Your task to perform on an android device: check the backup settings in the google photos Image 0: 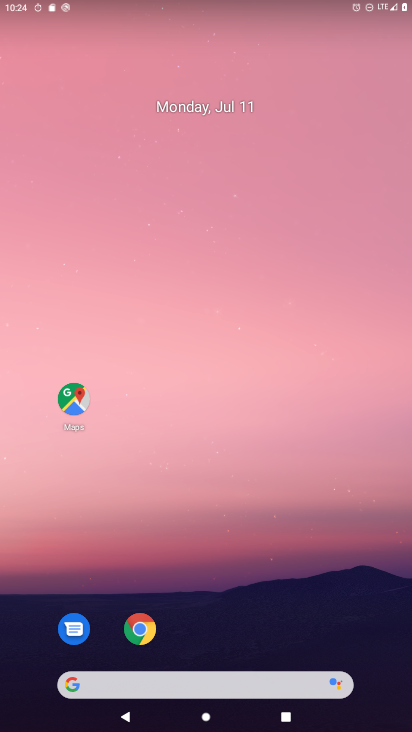
Step 0: drag from (197, 645) to (190, 173)
Your task to perform on an android device: check the backup settings in the google photos Image 1: 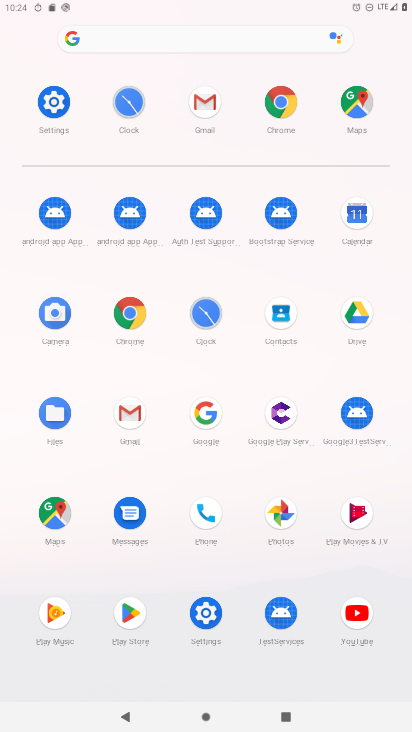
Step 1: click (277, 519)
Your task to perform on an android device: check the backup settings in the google photos Image 2: 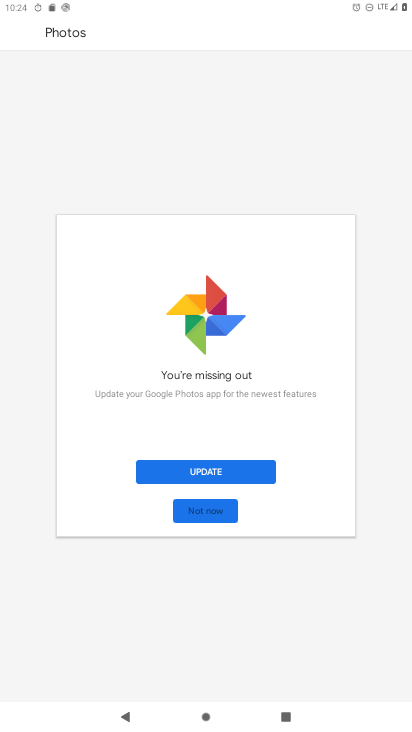
Step 2: click (227, 513)
Your task to perform on an android device: check the backup settings in the google photos Image 3: 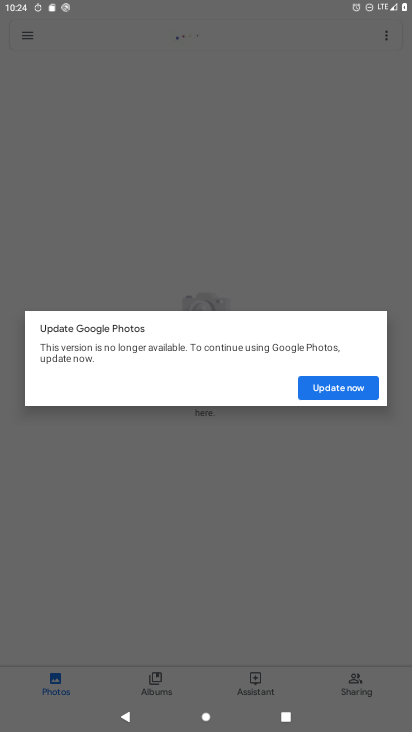
Step 3: click (358, 388)
Your task to perform on an android device: check the backup settings in the google photos Image 4: 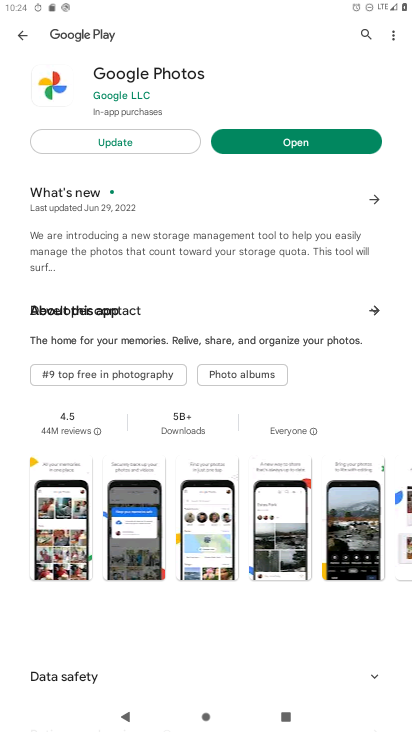
Step 4: click (303, 145)
Your task to perform on an android device: check the backup settings in the google photos Image 5: 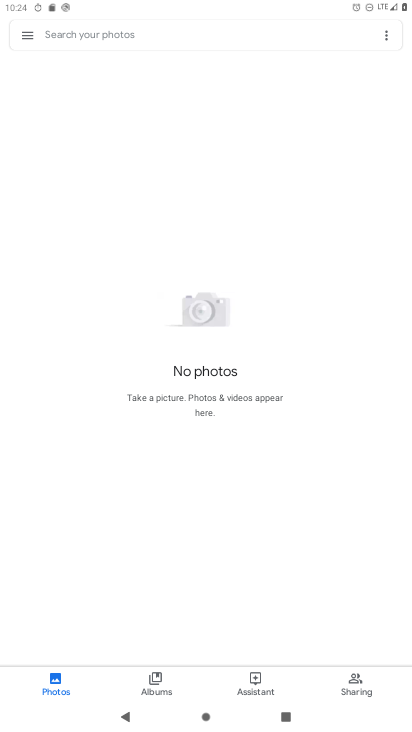
Step 5: click (29, 32)
Your task to perform on an android device: check the backup settings in the google photos Image 6: 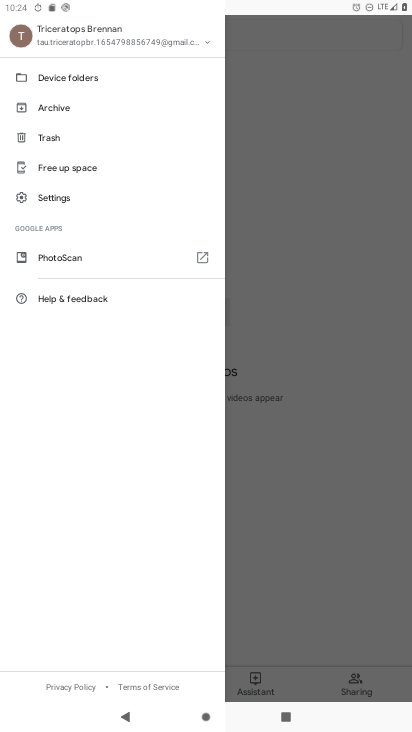
Step 6: click (76, 195)
Your task to perform on an android device: check the backup settings in the google photos Image 7: 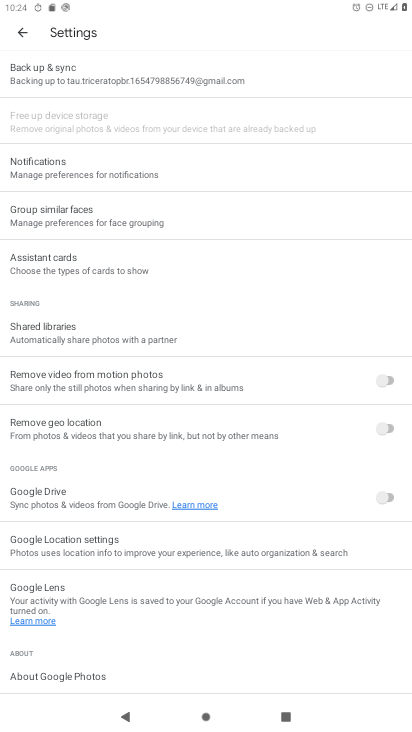
Step 7: click (76, 88)
Your task to perform on an android device: check the backup settings in the google photos Image 8: 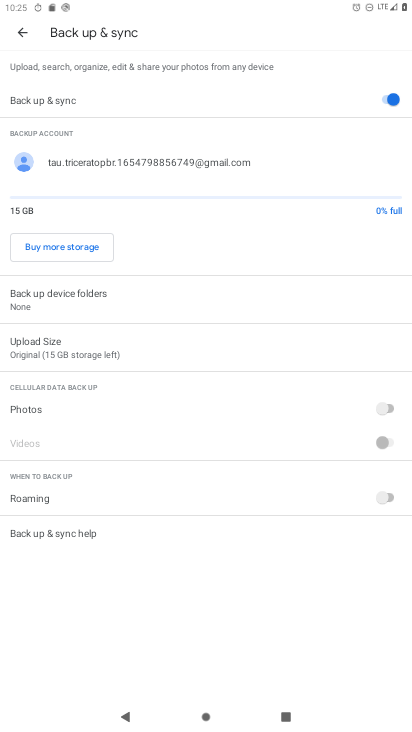
Step 8: click (180, 341)
Your task to perform on an android device: check the backup settings in the google photos Image 9: 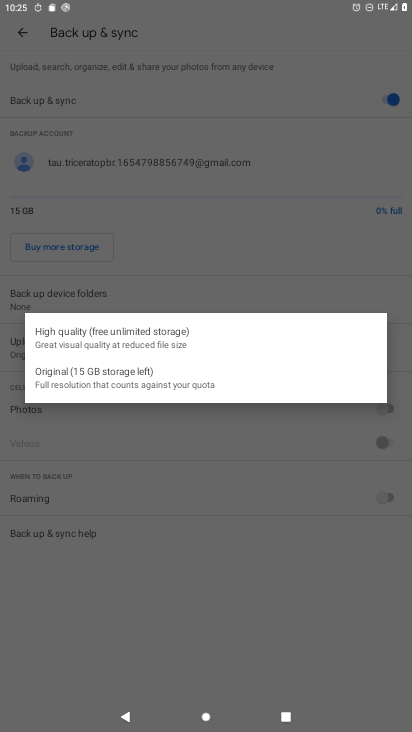
Step 9: click (212, 374)
Your task to perform on an android device: check the backup settings in the google photos Image 10: 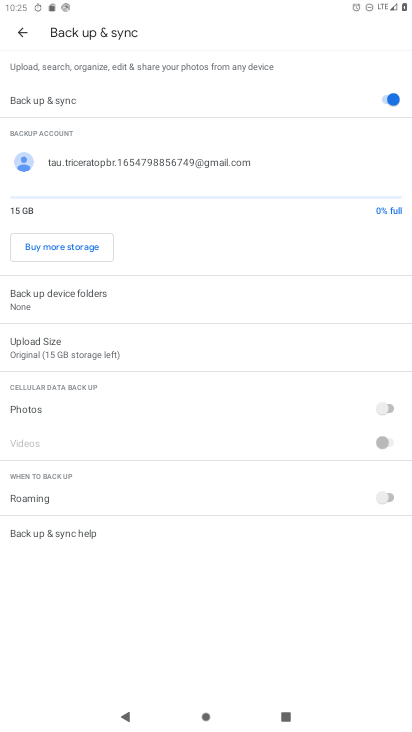
Step 10: click (315, 341)
Your task to perform on an android device: check the backup settings in the google photos Image 11: 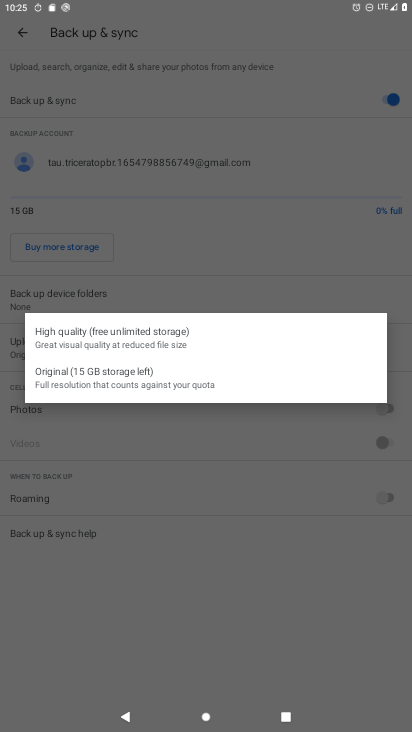
Step 11: click (315, 340)
Your task to perform on an android device: check the backup settings in the google photos Image 12: 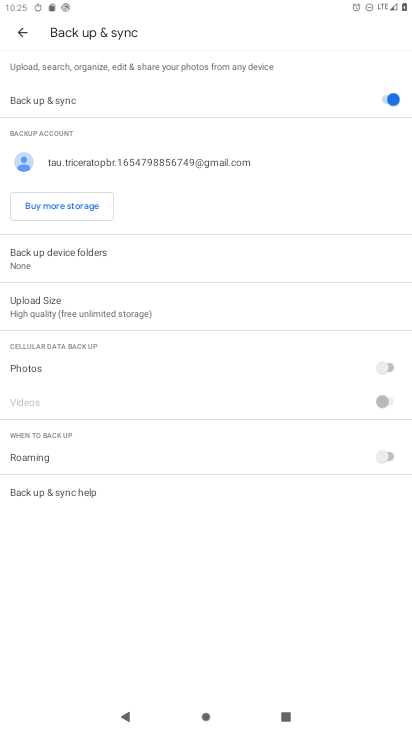
Step 12: task complete